Your task to perform on an android device: move a message to another label in the gmail app Image 0: 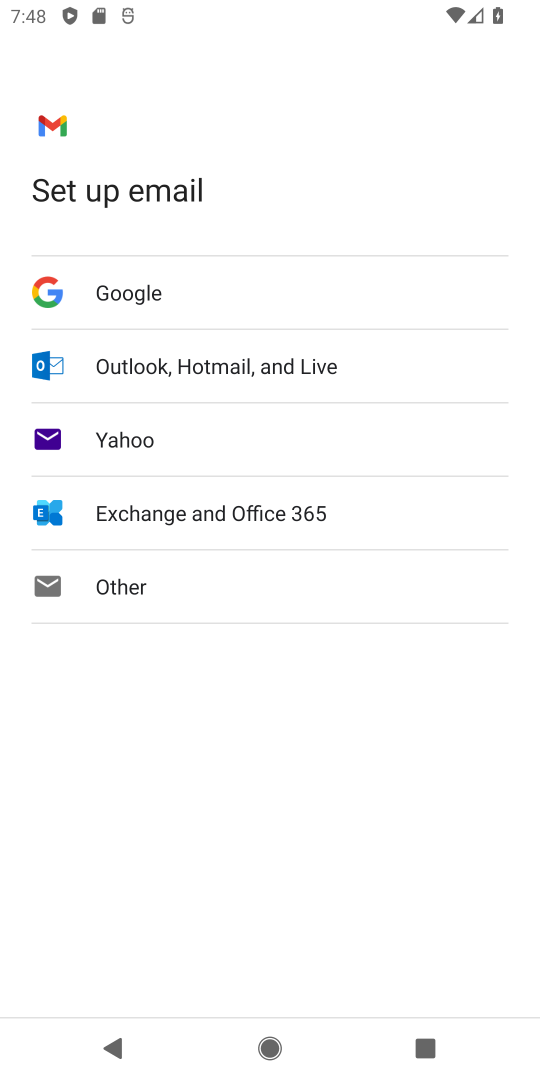
Step 0: press back button
Your task to perform on an android device: move a message to another label in the gmail app Image 1: 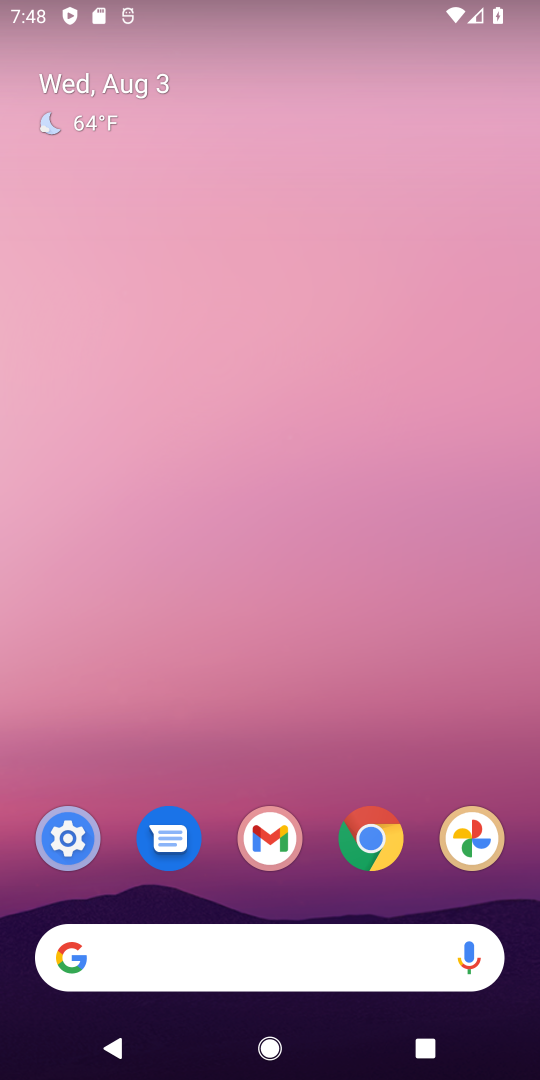
Step 1: drag from (298, 693) to (278, 484)
Your task to perform on an android device: move a message to another label in the gmail app Image 2: 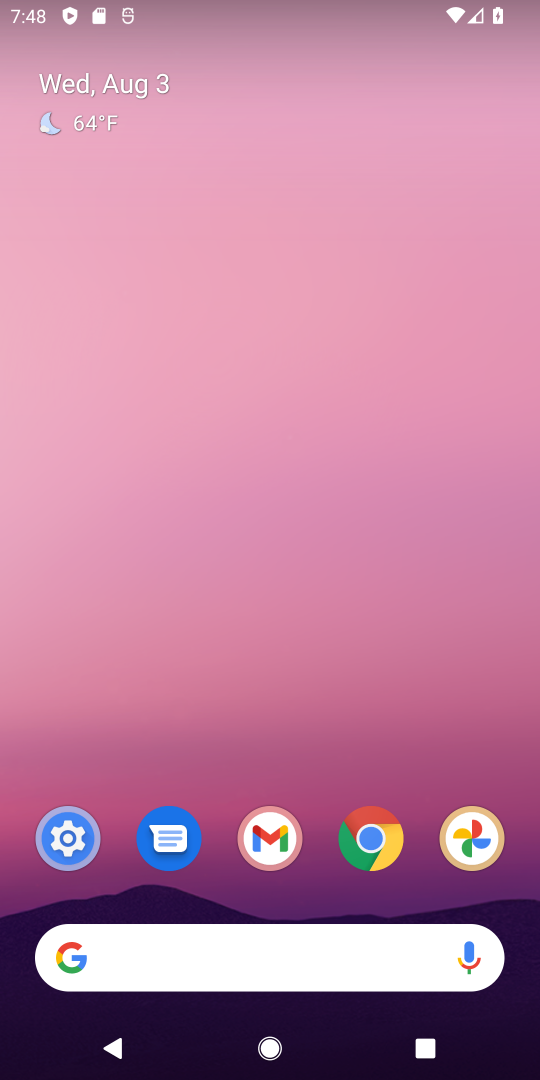
Step 2: drag from (222, 795) to (226, 73)
Your task to perform on an android device: move a message to another label in the gmail app Image 3: 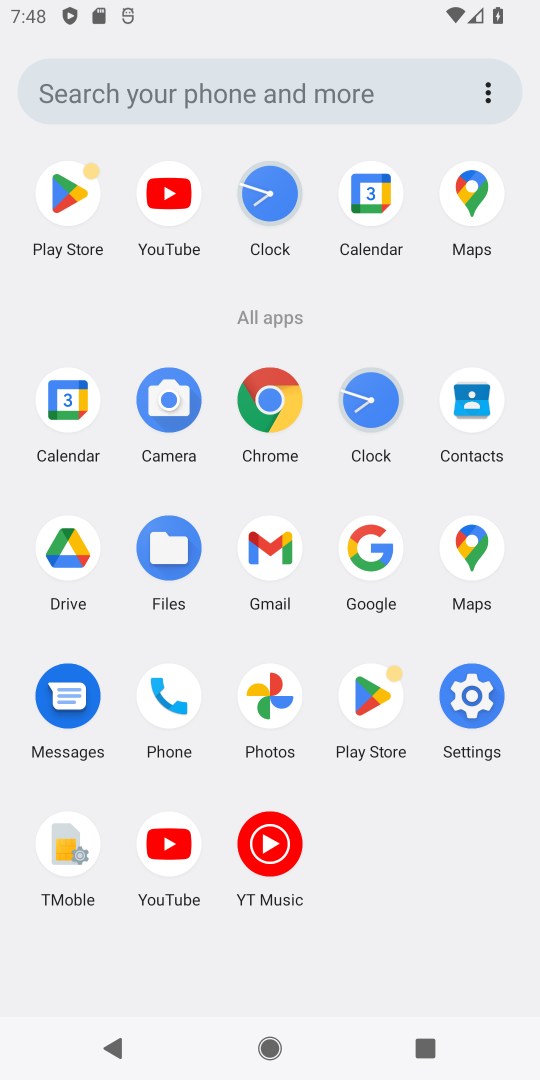
Step 3: click (279, 560)
Your task to perform on an android device: move a message to another label in the gmail app Image 4: 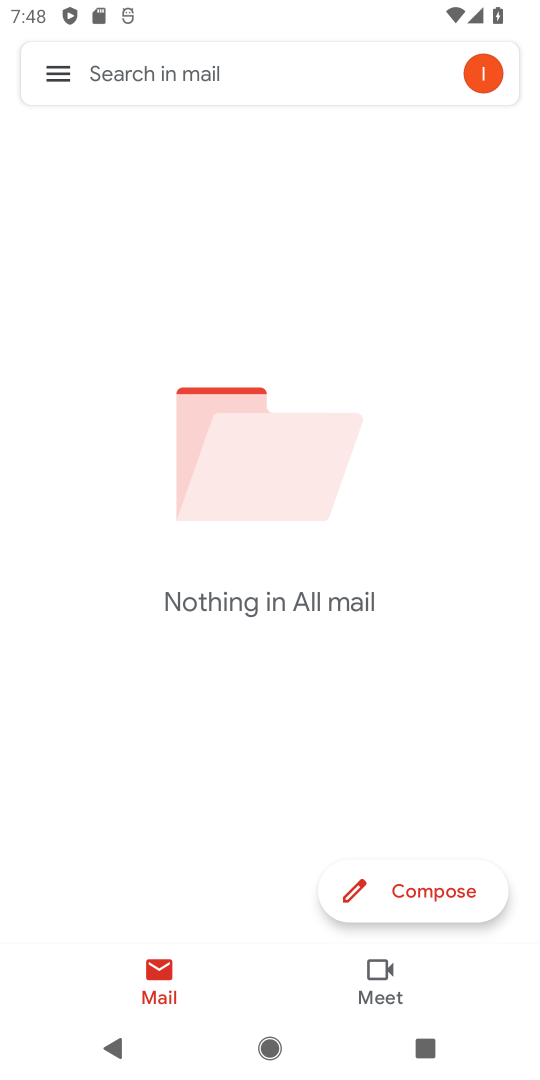
Step 4: task complete